Your task to perform on an android device: What's on my calendar today? Image 0: 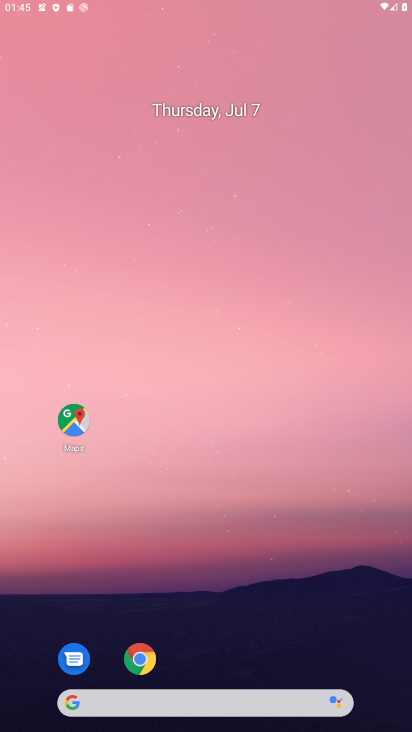
Step 0: press home button
Your task to perform on an android device: What's on my calendar today? Image 1: 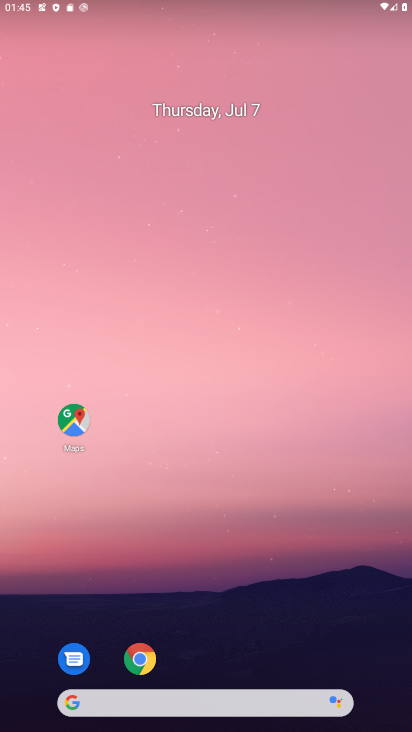
Step 1: drag from (212, 624) to (248, 36)
Your task to perform on an android device: What's on my calendar today? Image 2: 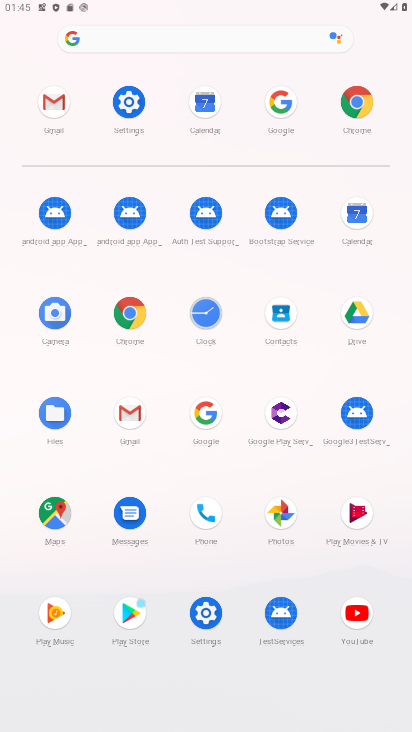
Step 2: click (353, 217)
Your task to perform on an android device: What's on my calendar today? Image 3: 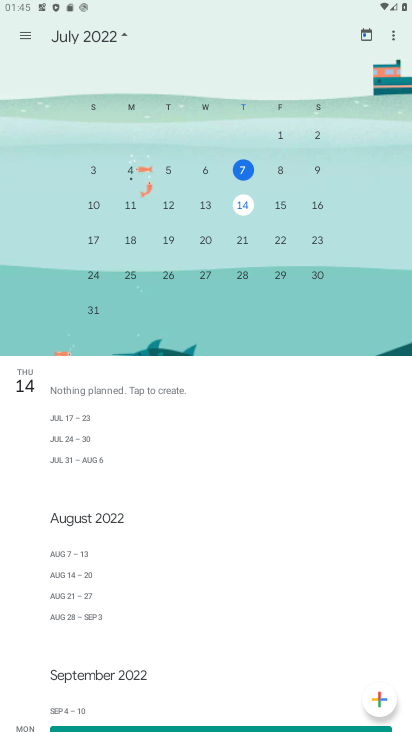
Step 3: click (247, 171)
Your task to perform on an android device: What's on my calendar today? Image 4: 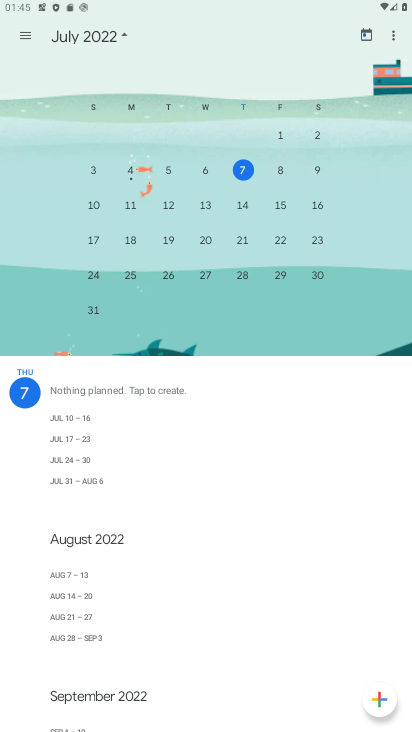
Step 4: task complete